Your task to perform on an android device: set an alarm Image 0: 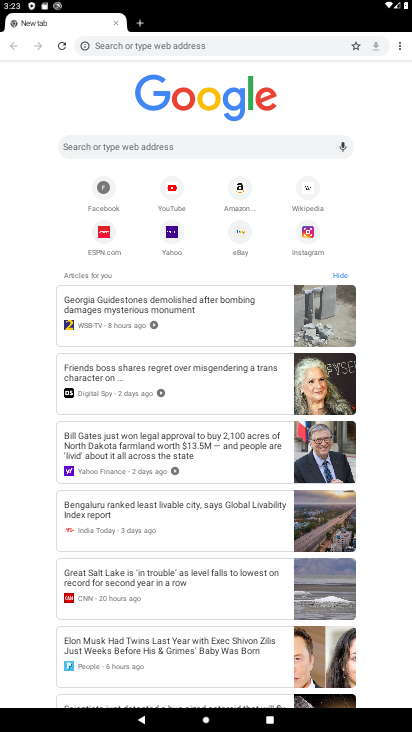
Step 0: drag from (89, 485) to (193, 161)
Your task to perform on an android device: set an alarm Image 1: 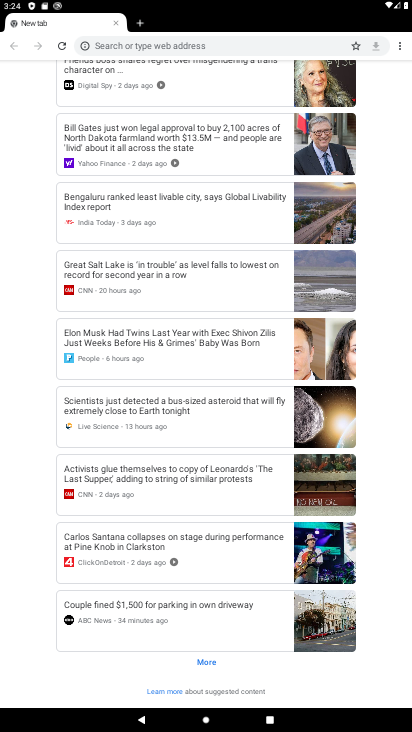
Step 1: drag from (138, 551) to (236, 282)
Your task to perform on an android device: set an alarm Image 2: 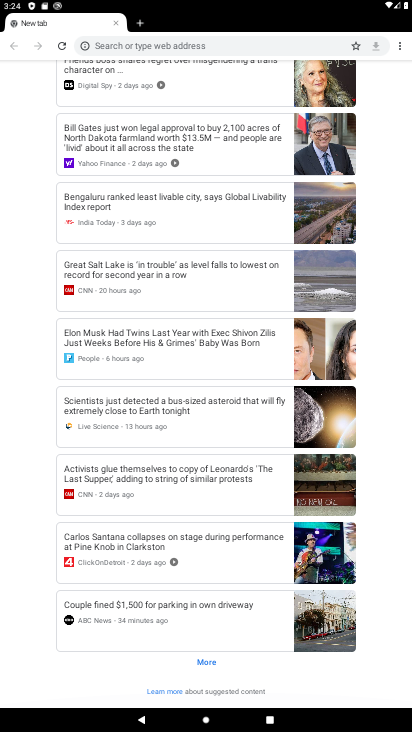
Step 2: press home button
Your task to perform on an android device: set an alarm Image 3: 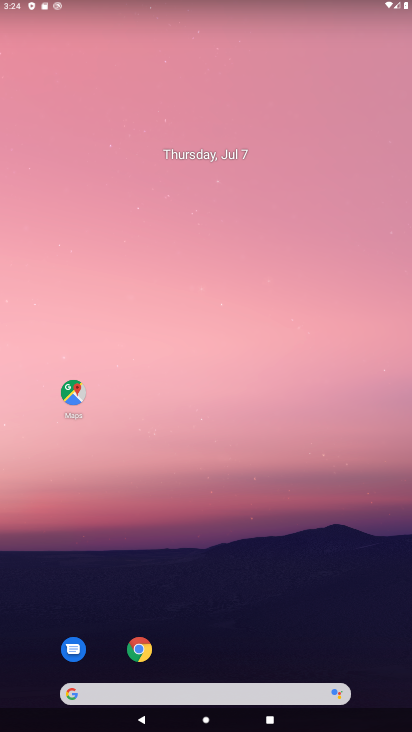
Step 3: drag from (213, 618) to (323, 66)
Your task to perform on an android device: set an alarm Image 4: 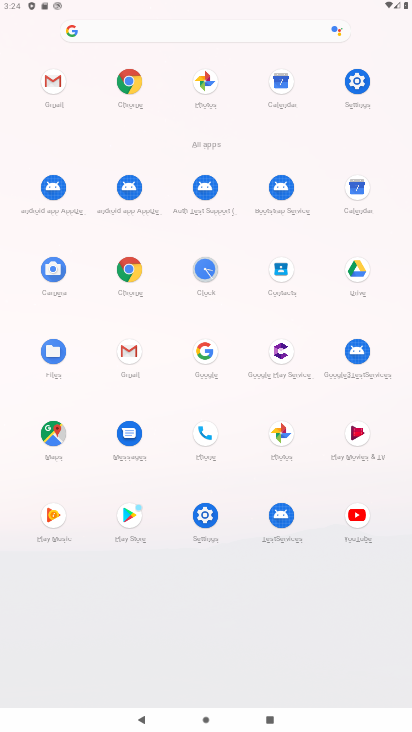
Step 4: click (202, 262)
Your task to perform on an android device: set an alarm Image 5: 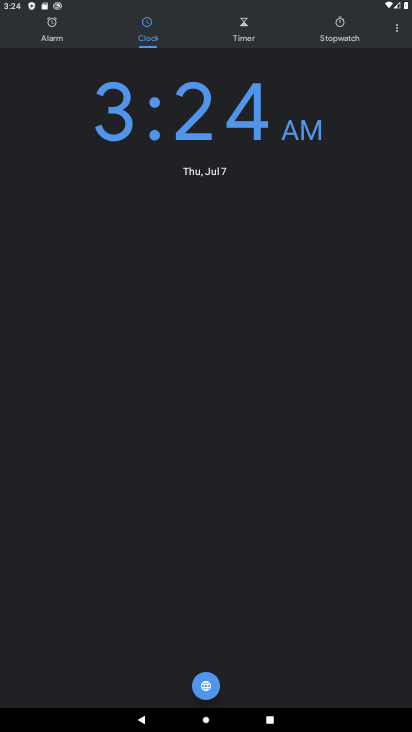
Step 5: click (58, 31)
Your task to perform on an android device: set an alarm Image 6: 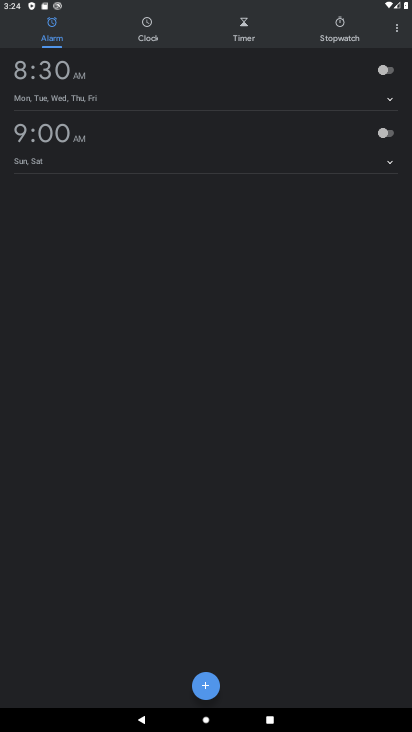
Step 6: click (384, 73)
Your task to perform on an android device: set an alarm Image 7: 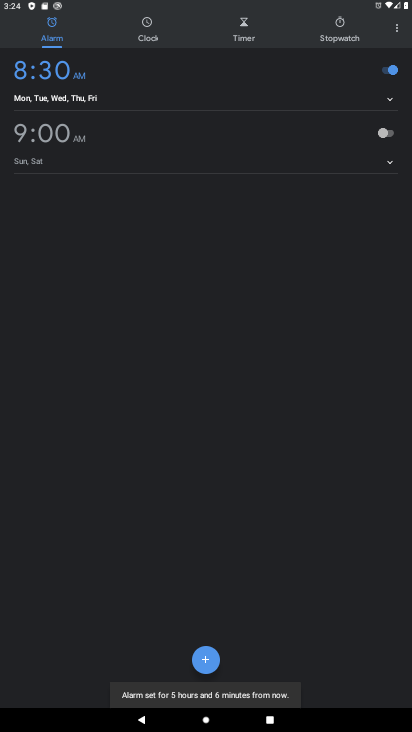
Step 7: task complete